Your task to perform on an android device: turn on data saver in the chrome app Image 0: 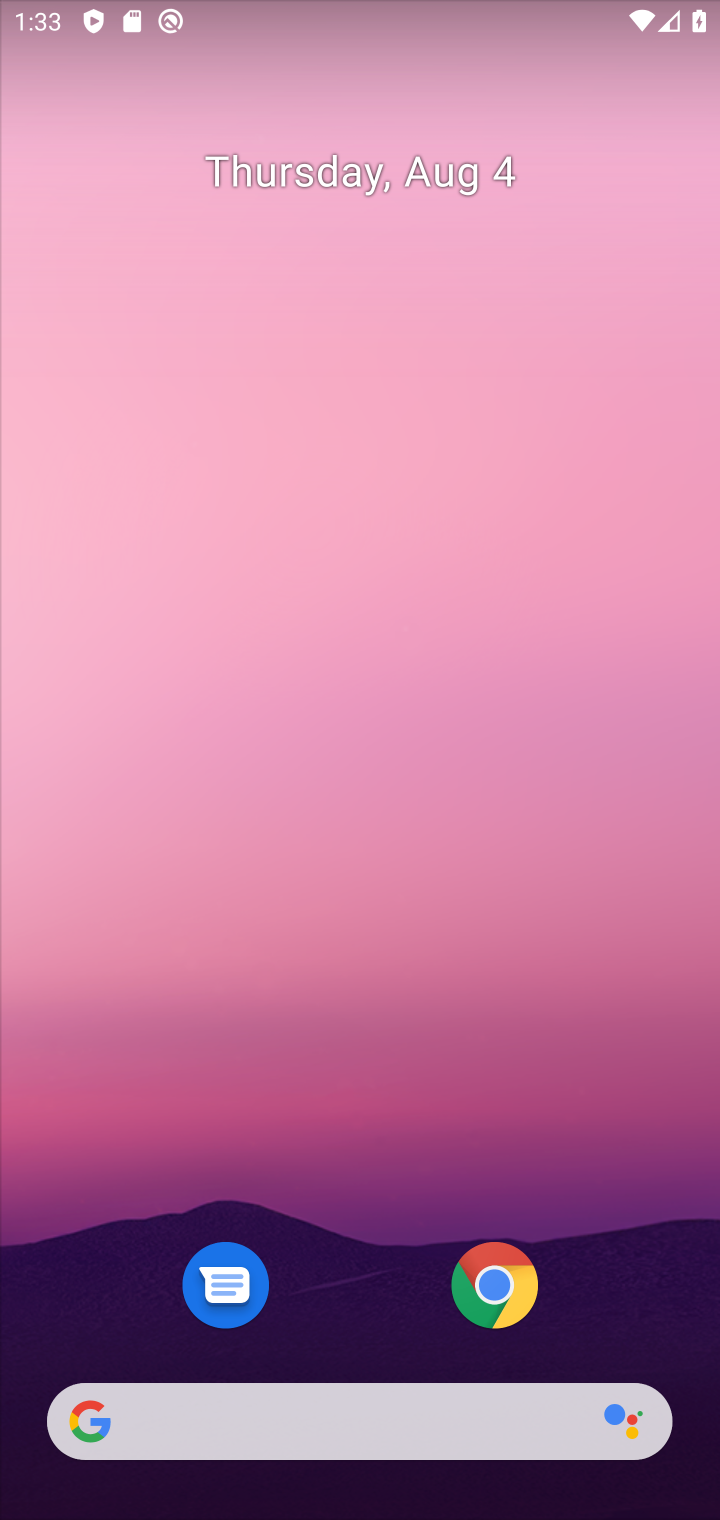
Step 0: click (494, 1282)
Your task to perform on an android device: turn on data saver in the chrome app Image 1: 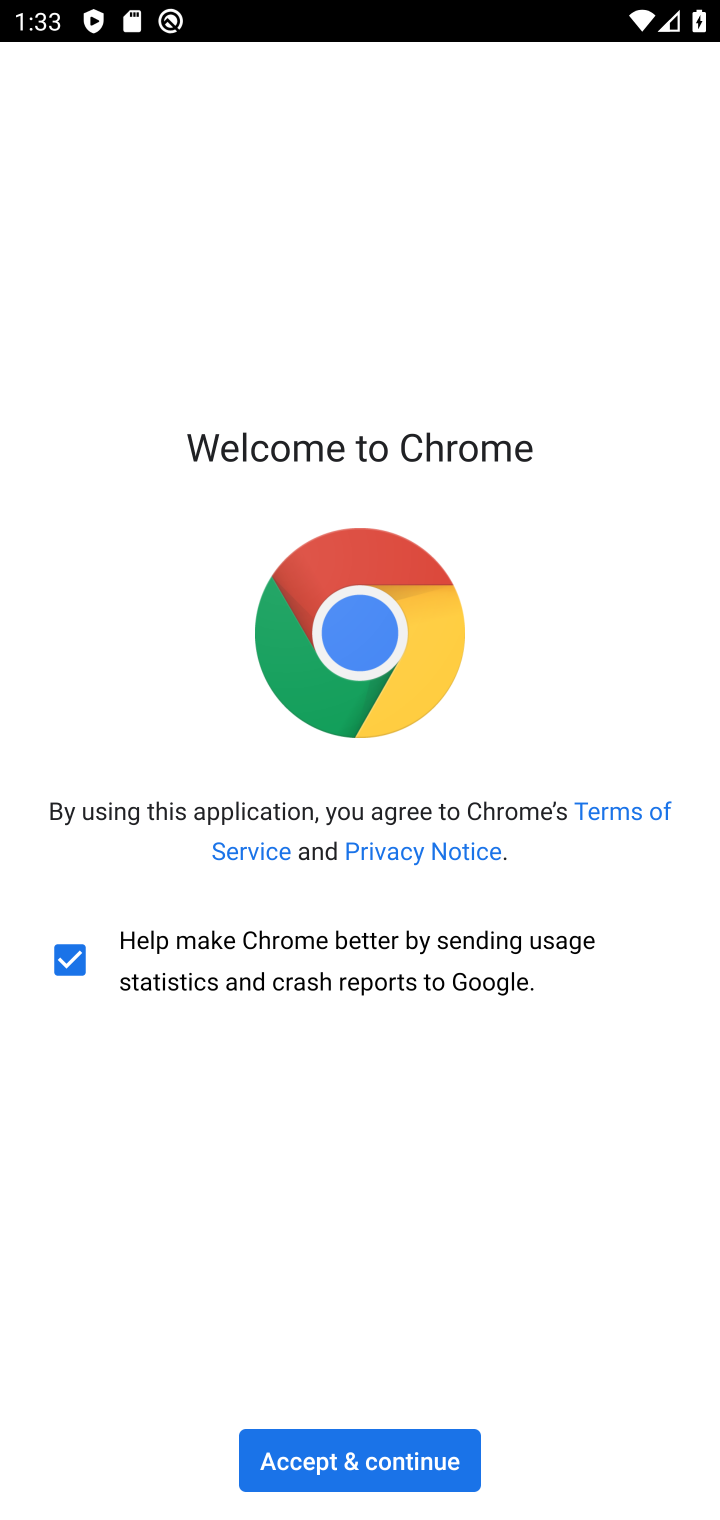
Step 1: click (362, 1473)
Your task to perform on an android device: turn on data saver in the chrome app Image 2: 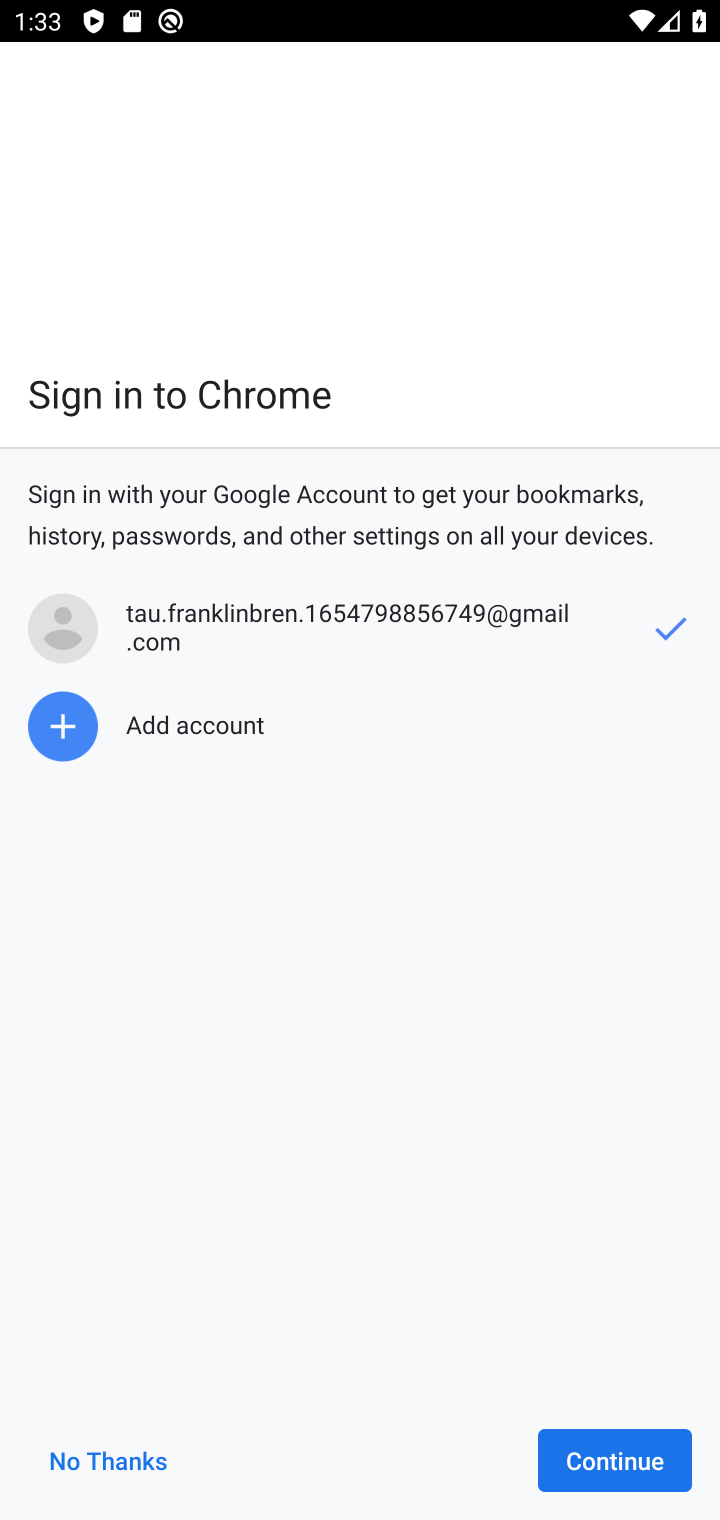
Step 2: click (610, 1459)
Your task to perform on an android device: turn on data saver in the chrome app Image 3: 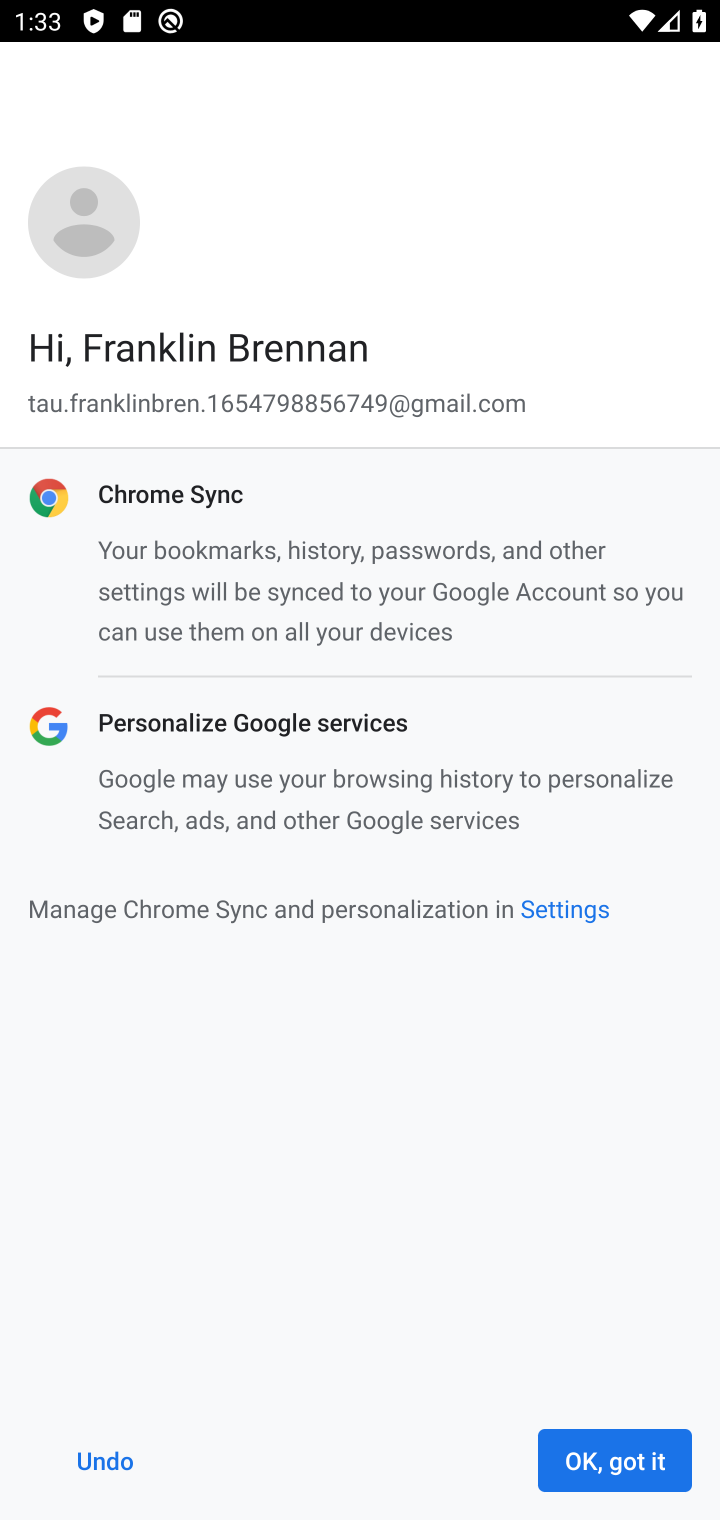
Step 3: click (622, 1463)
Your task to perform on an android device: turn on data saver in the chrome app Image 4: 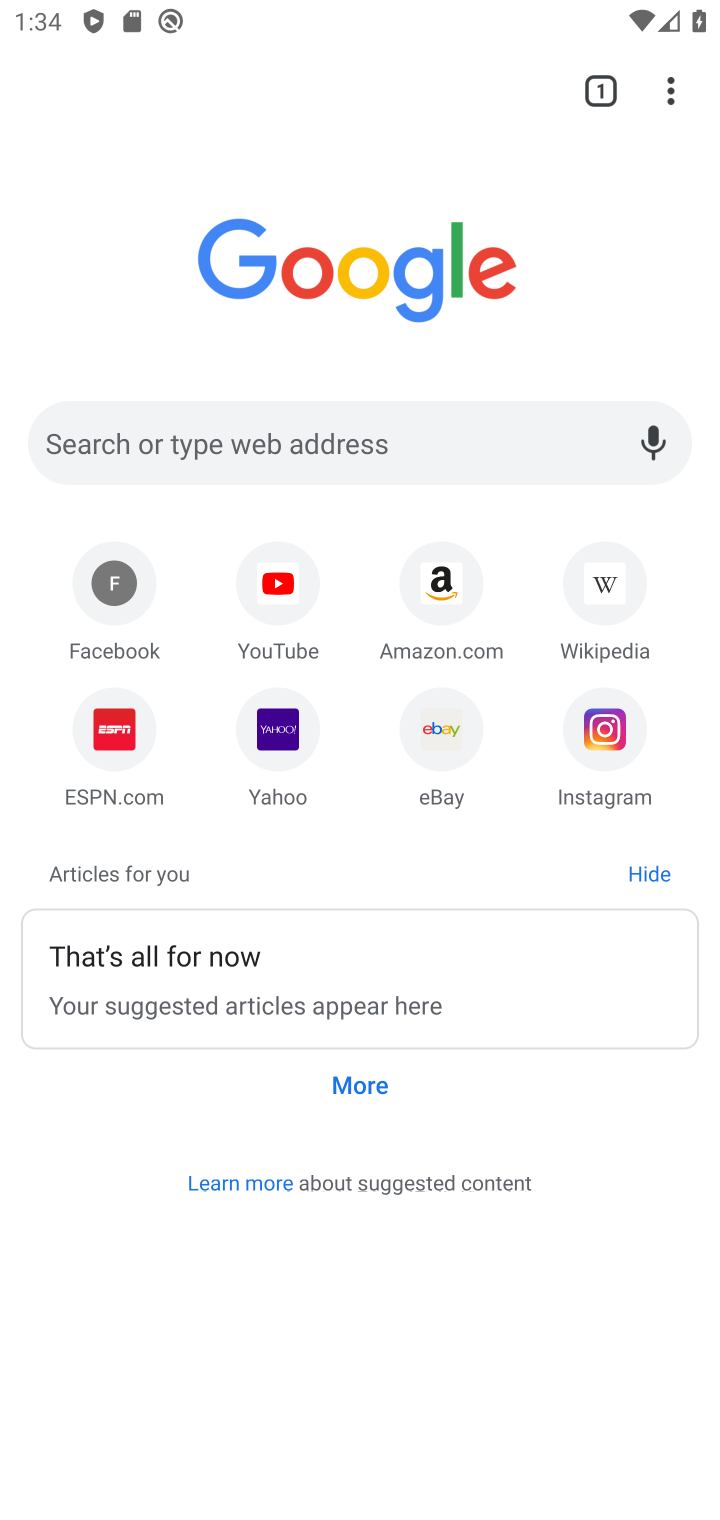
Step 4: click (649, 100)
Your task to perform on an android device: turn on data saver in the chrome app Image 5: 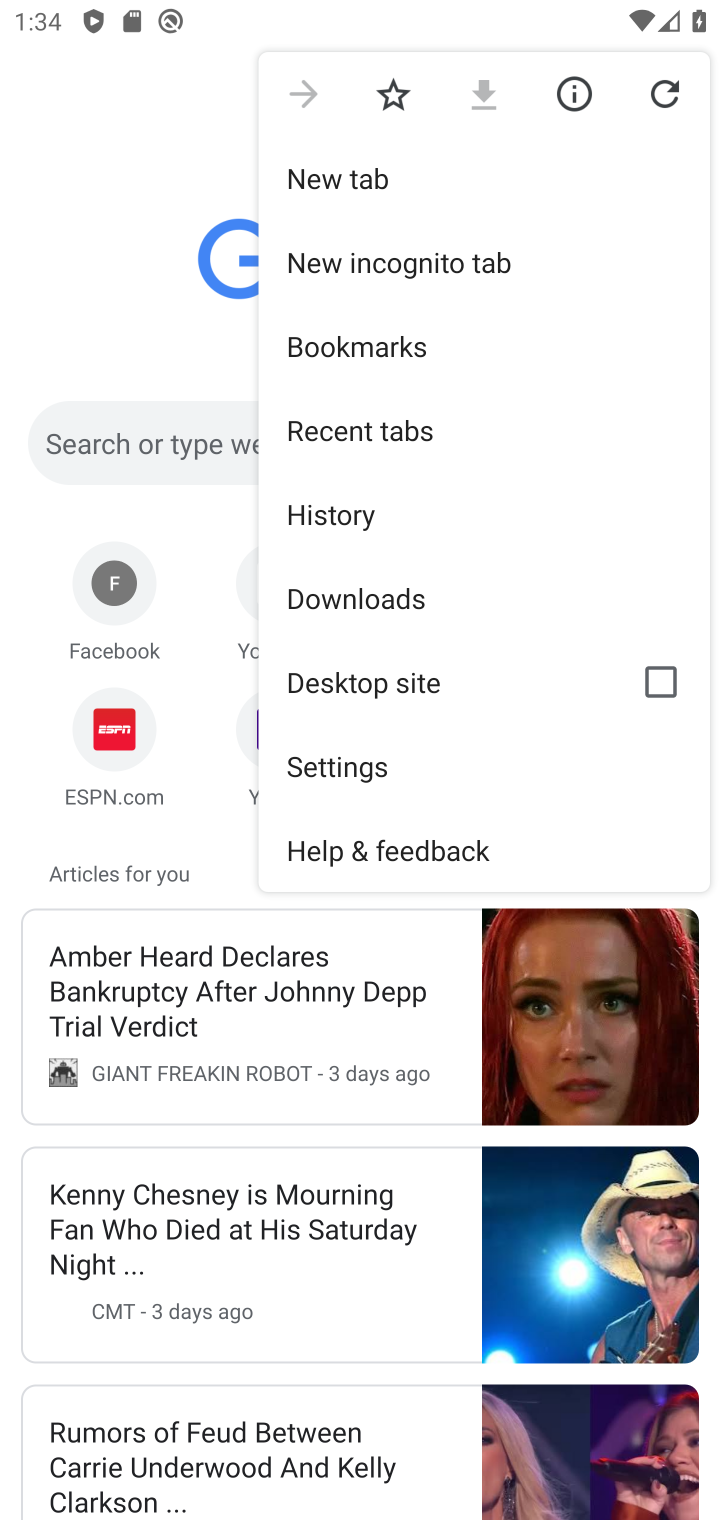
Step 5: click (356, 765)
Your task to perform on an android device: turn on data saver in the chrome app Image 6: 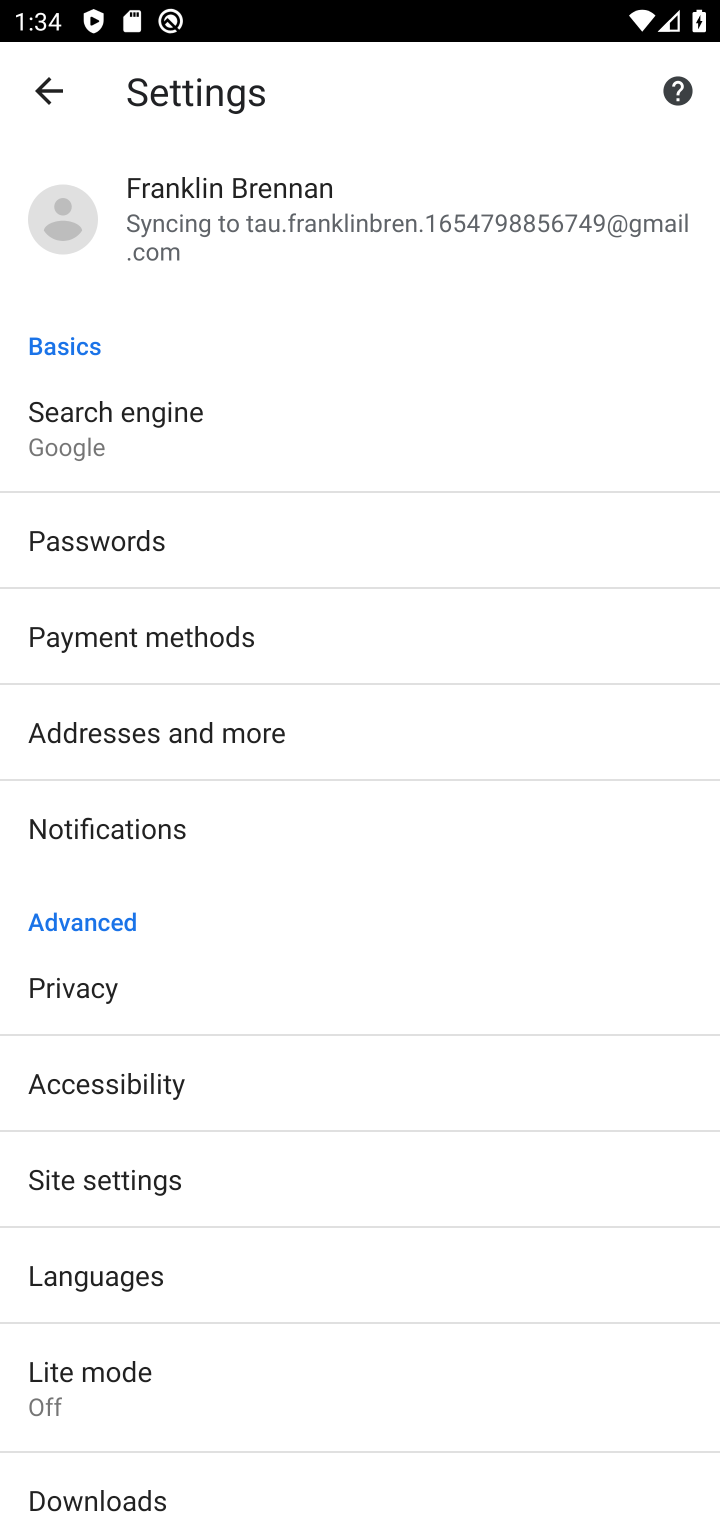
Step 6: click (71, 1359)
Your task to perform on an android device: turn on data saver in the chrome app Image 7: 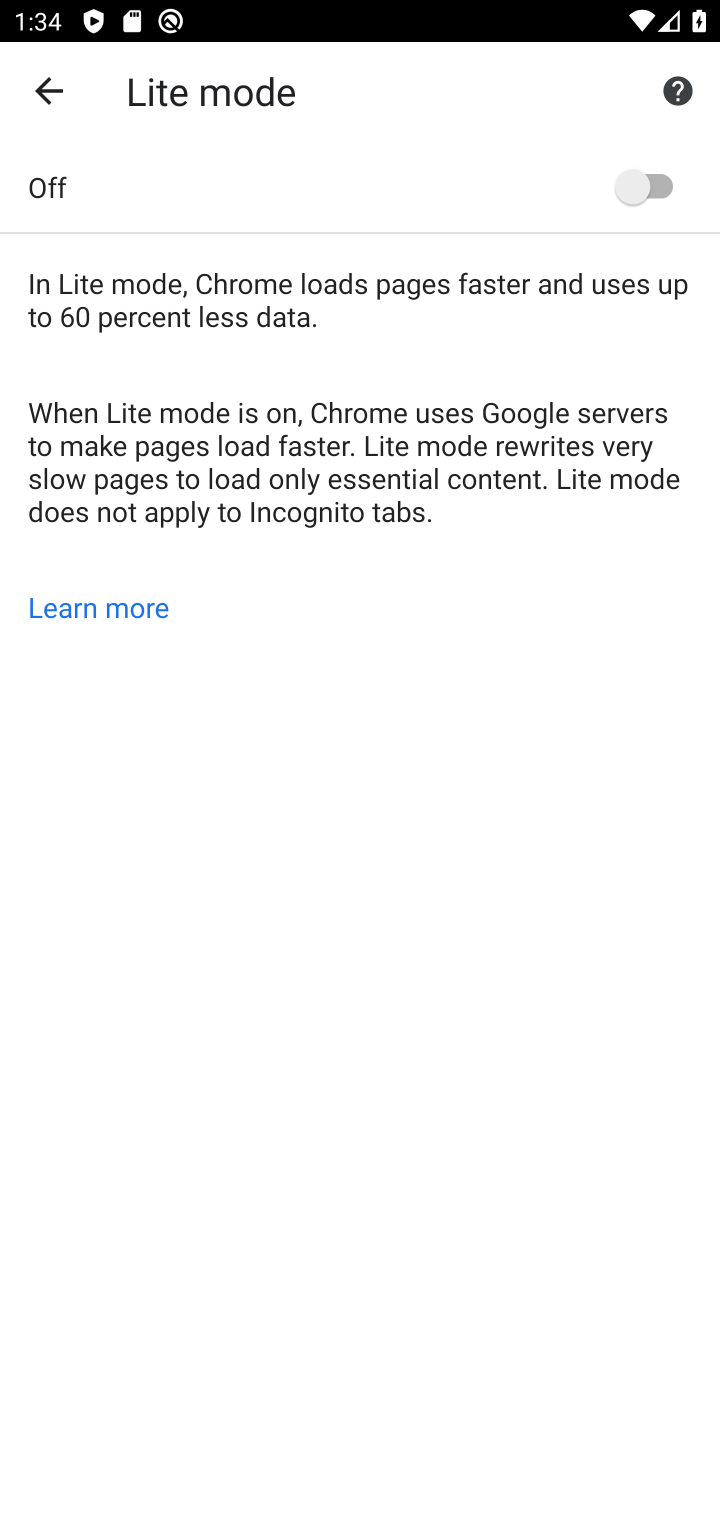
Step 7: click (669, 192)
Your task to perform on an android device: turn on data saver in the chrome app Image 8: 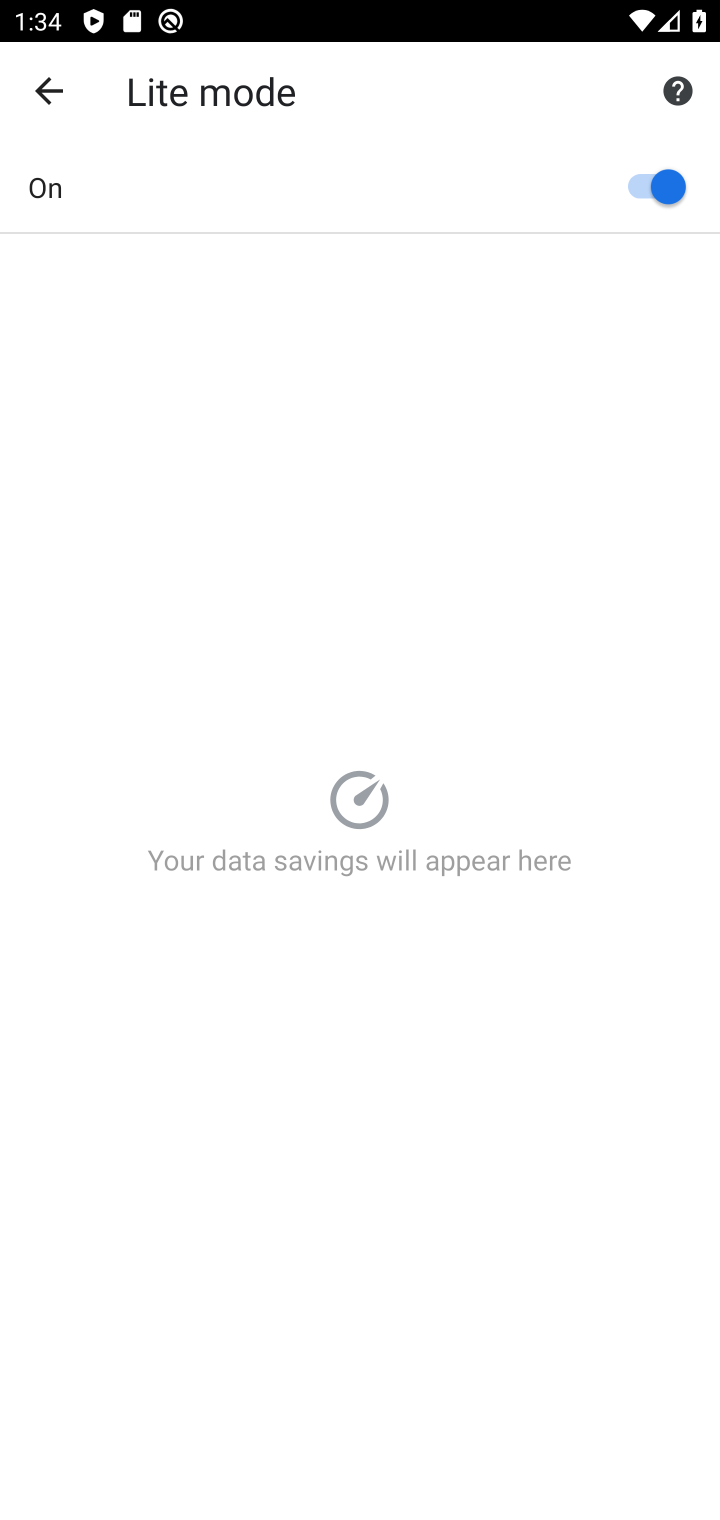
Step 8: task complete